Your task to perform on an android device: change alarm snooze length Image 0: 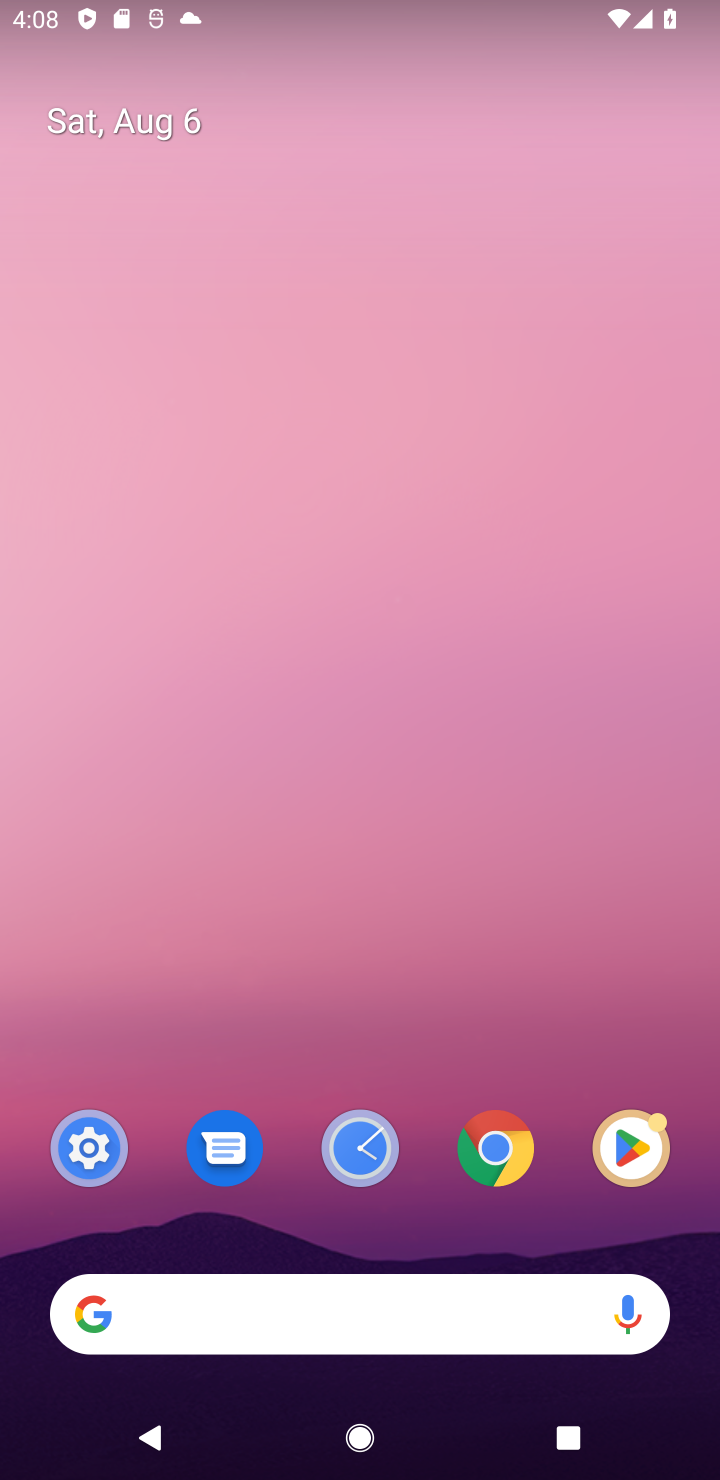
Step 0: drag from (393, 1148) to (318, 3)
Your task to perform on an android device: change alarm snooze length Image 1: 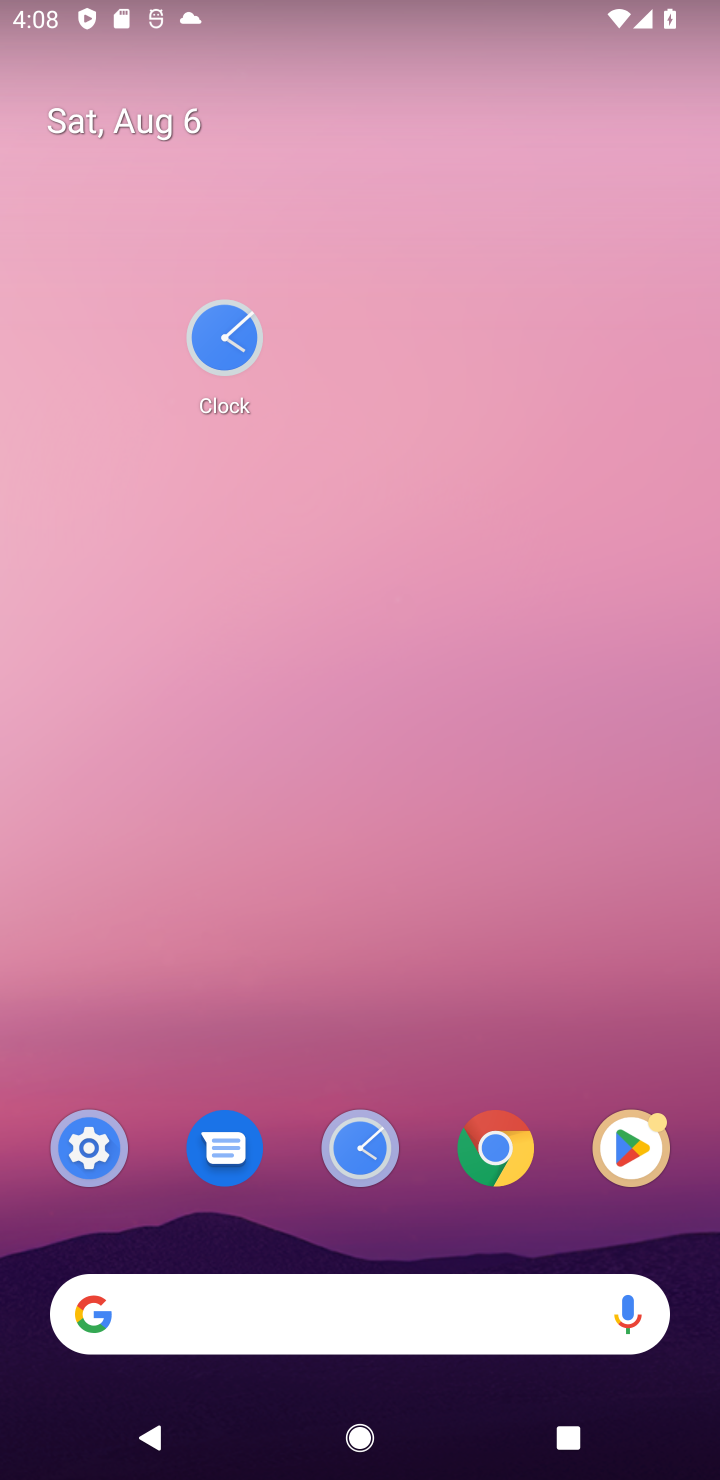
Step 1: click (349, 1148)
Your task to perform on an android device: change alarm snooze length Image 2: 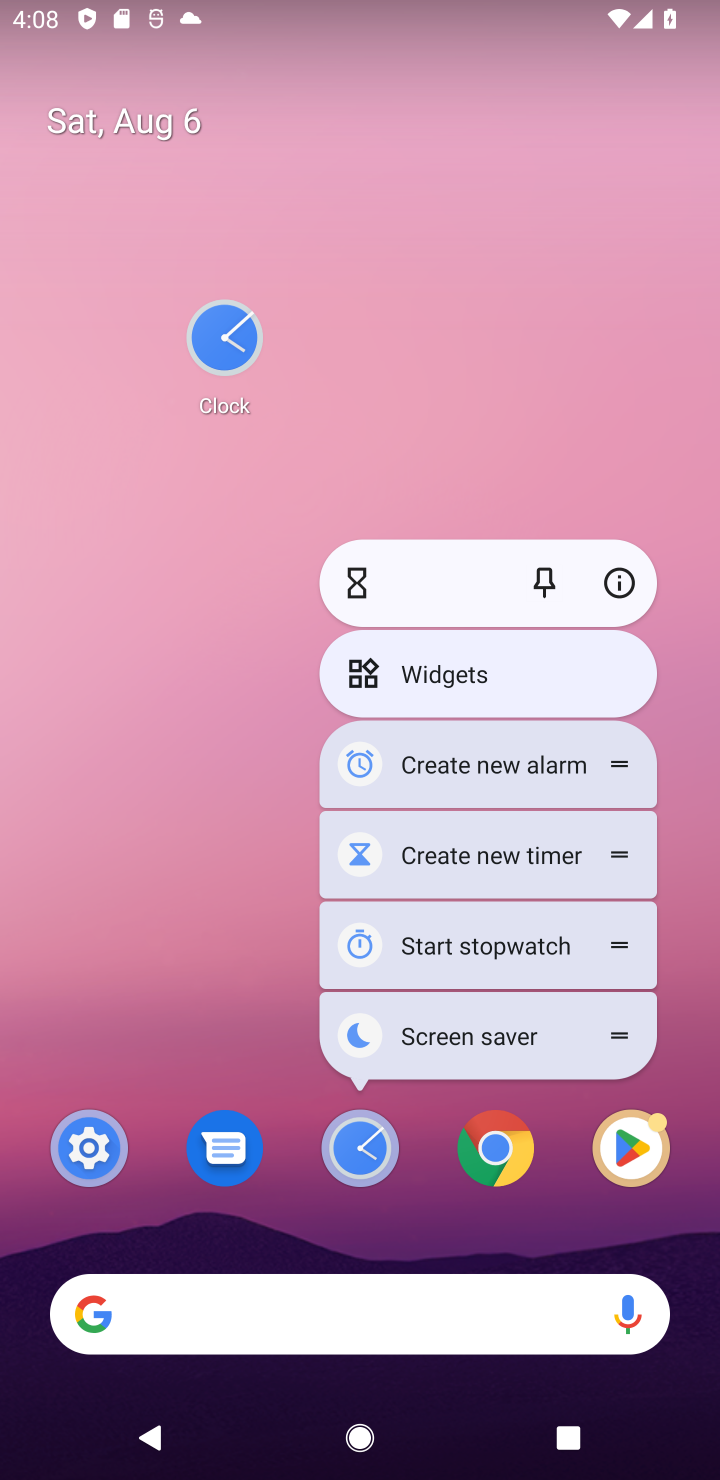
Step 2: click (621, 577)
Your task to perform on an android device: change alarm snooze length Image 3: 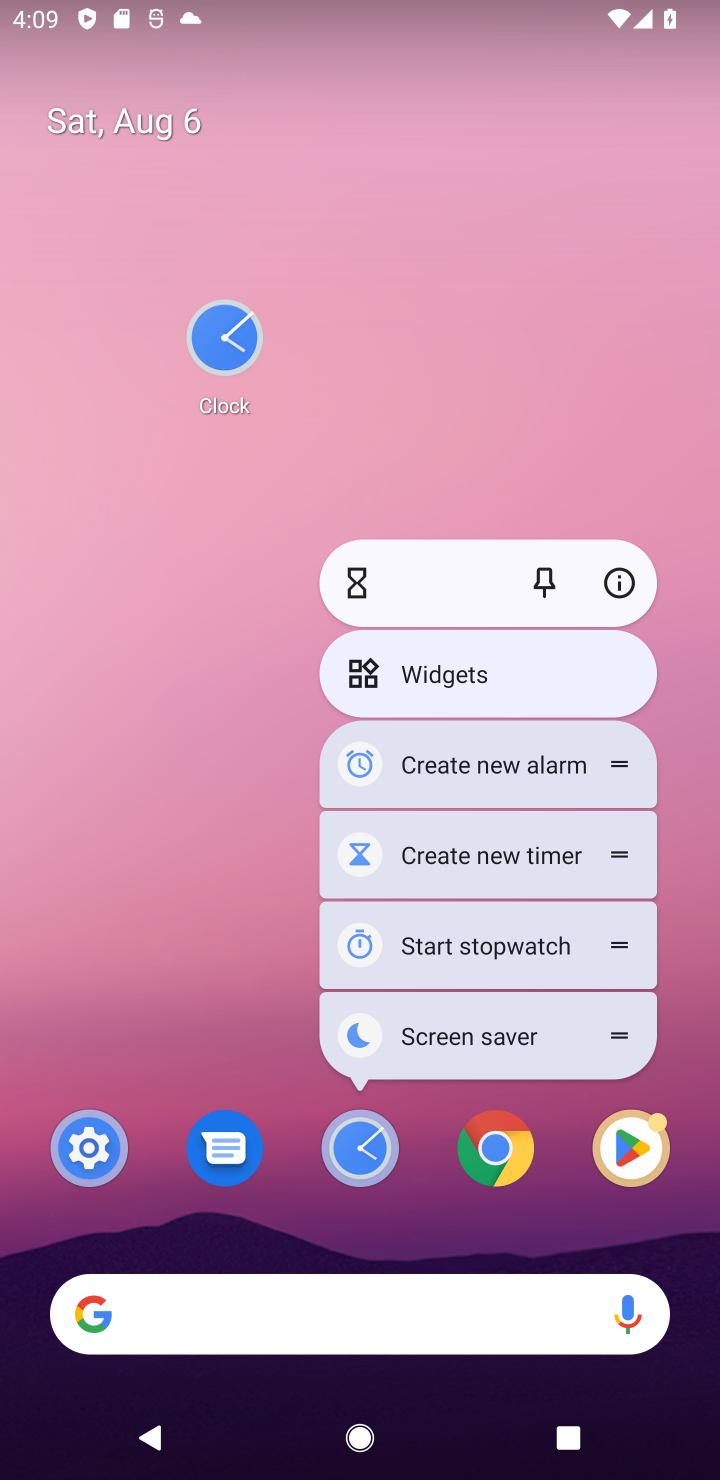
Step 3: click (605, 571)
Your task to perform on an android device: change alarm snooze length Image 4: 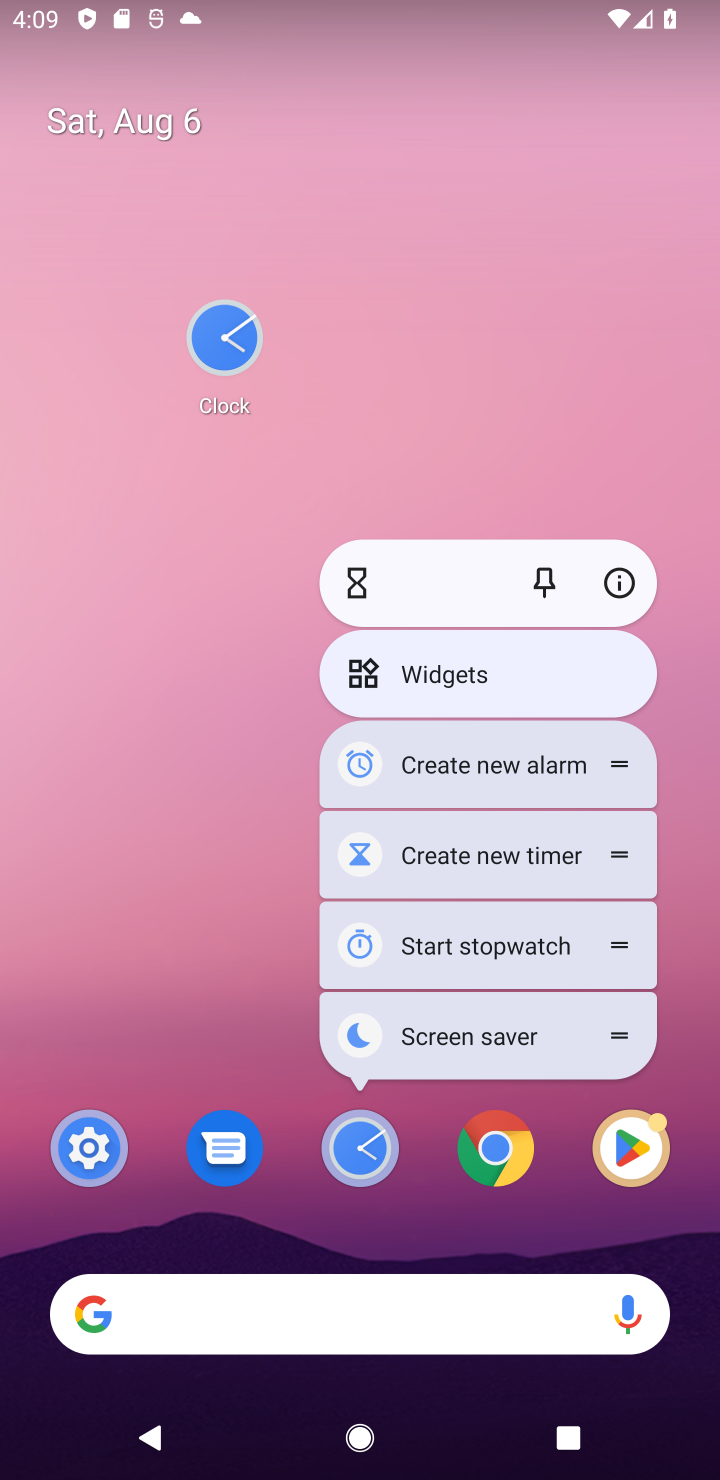
Step 4: click (614, 599)
Your task to perform on an android device: change alarm snooze length Image 5: 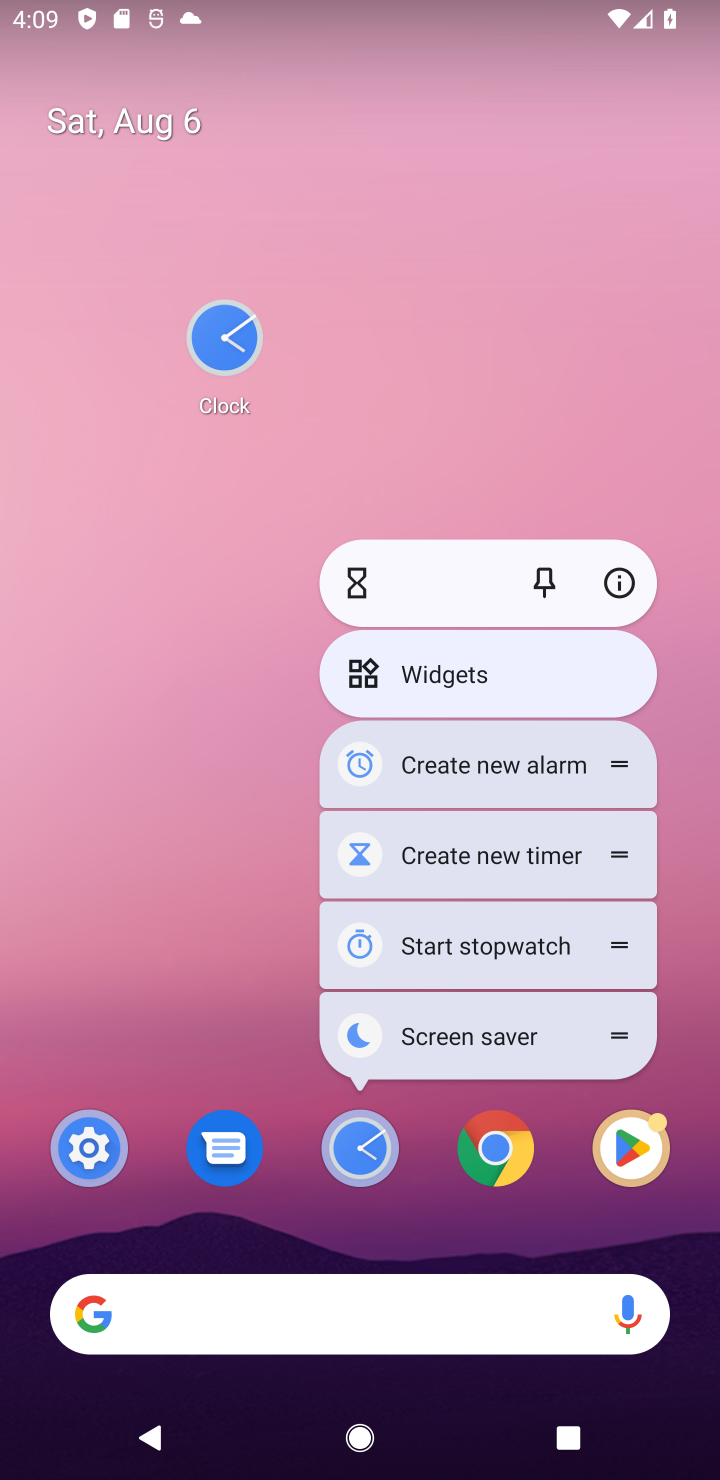
Step 5: click (616, 596)
Your task to perform on an android device: change alarm snooze length Image 6: 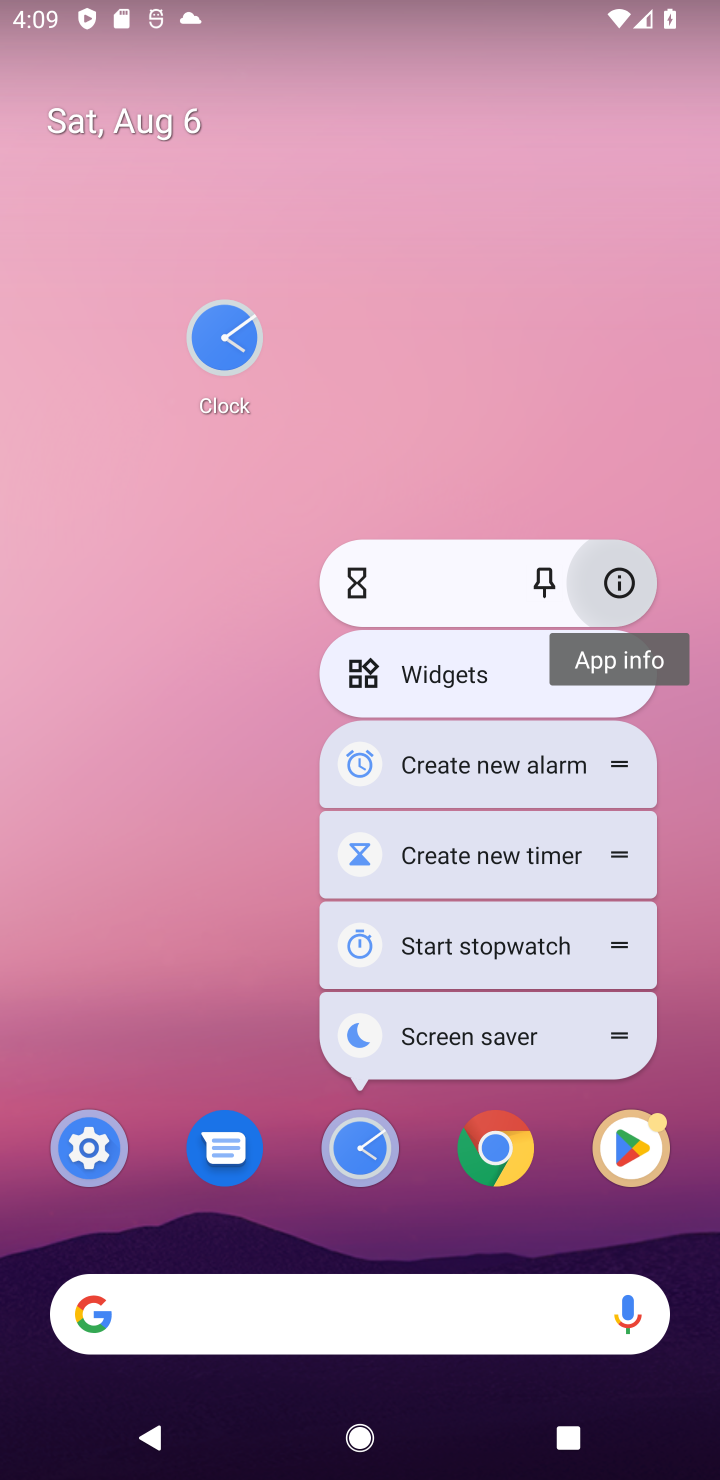
Step 6: click (616, 596)
Your task to perform on an android device: change alarm snooze length Image 7: 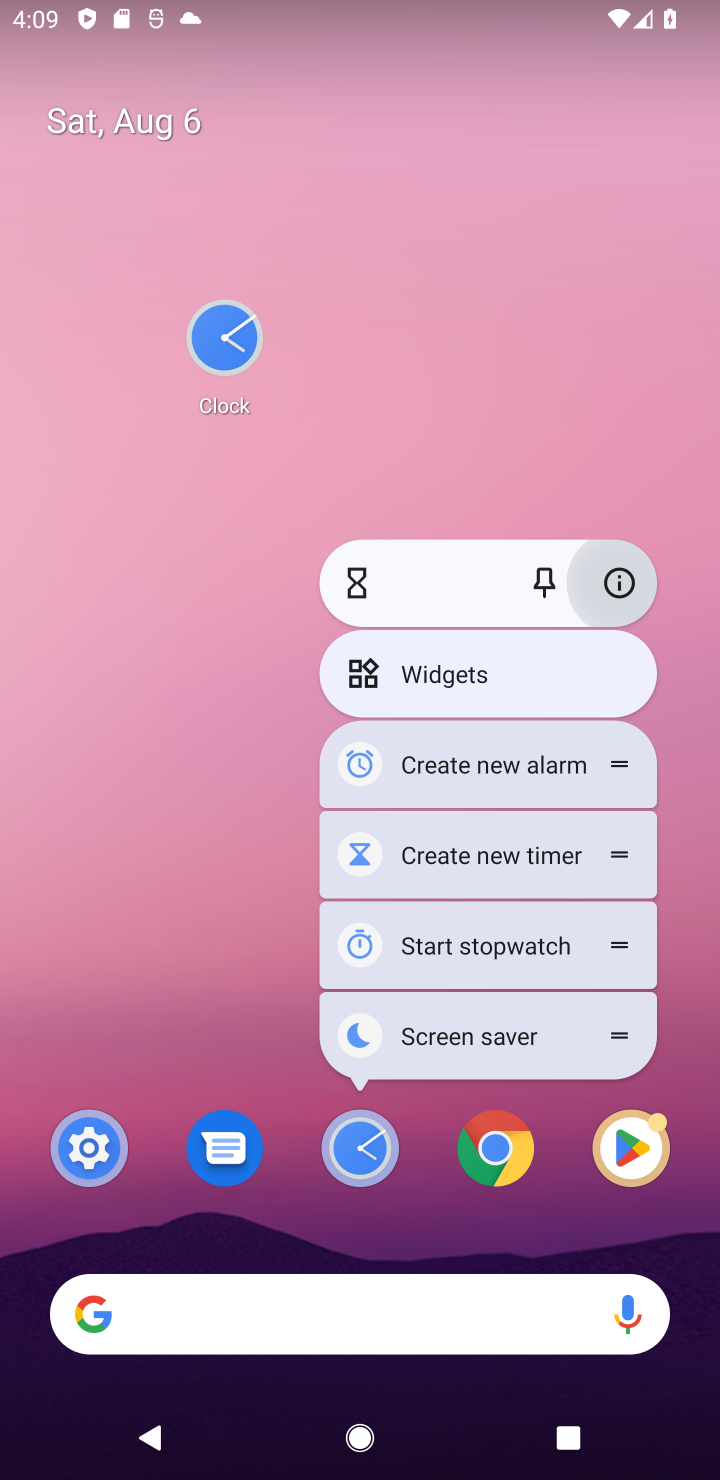
Step 7: click (616, 596)
Your task to perform on an android device: change alarm snooze length Image 8: 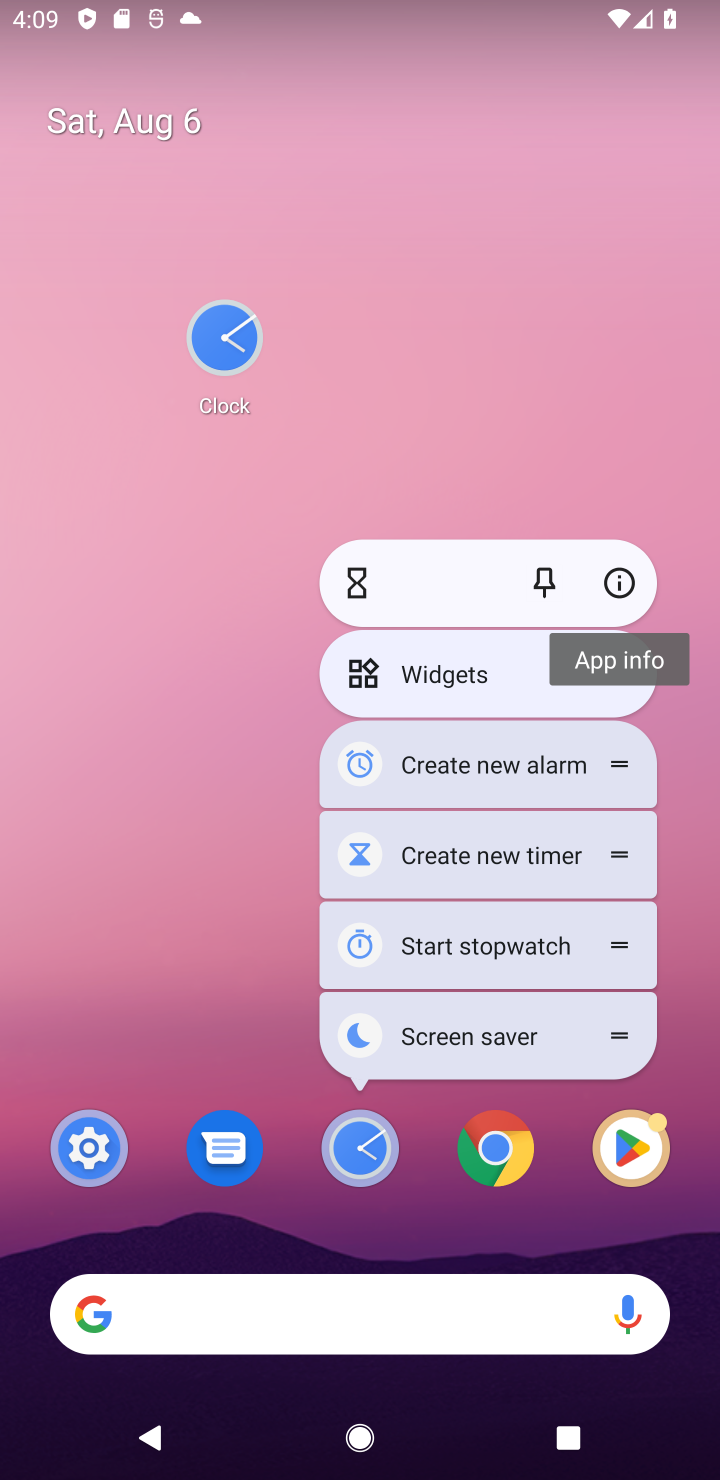
Step 8: click (616, 596)
Your task to perform on an android device: change alarm snooze length Image 9: 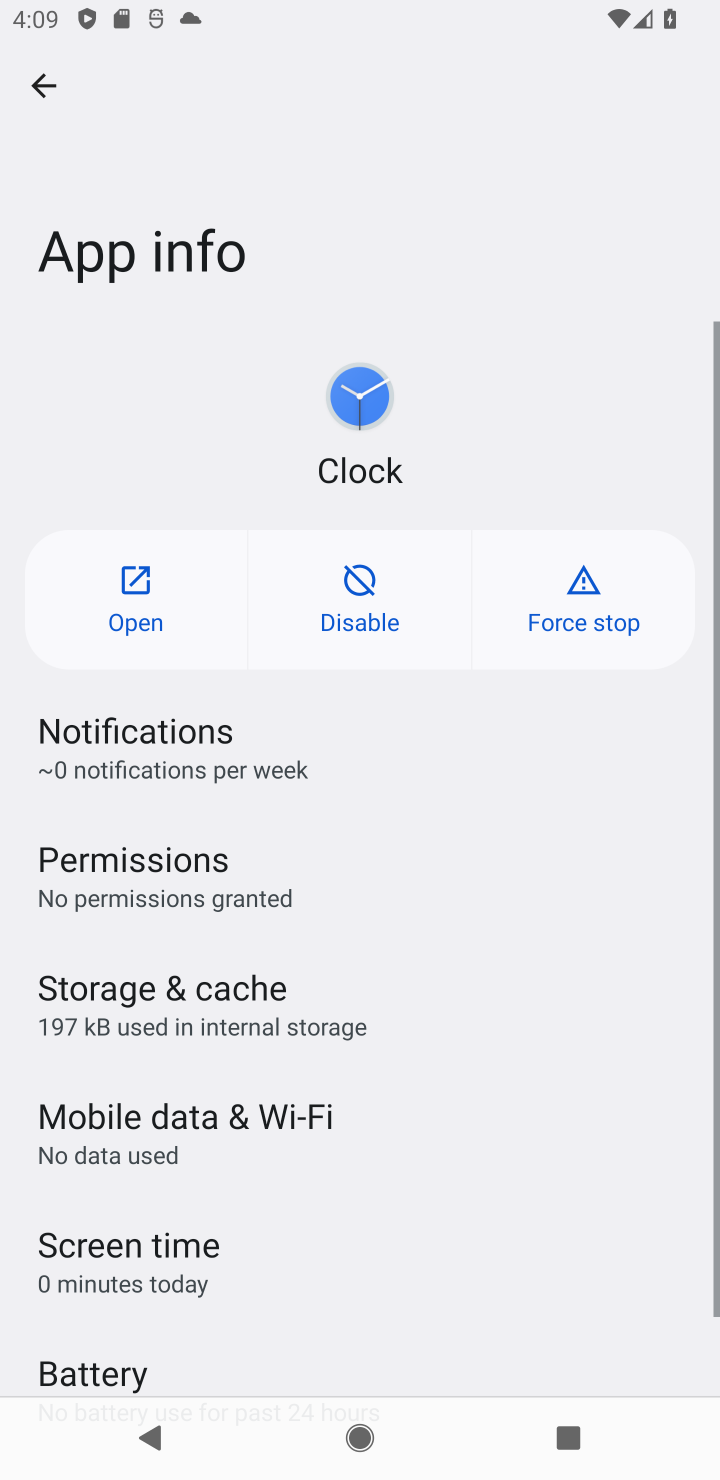
Step 9: click (139, 587)
Your task to perform on an android device: change alarm snooze length Image 10: 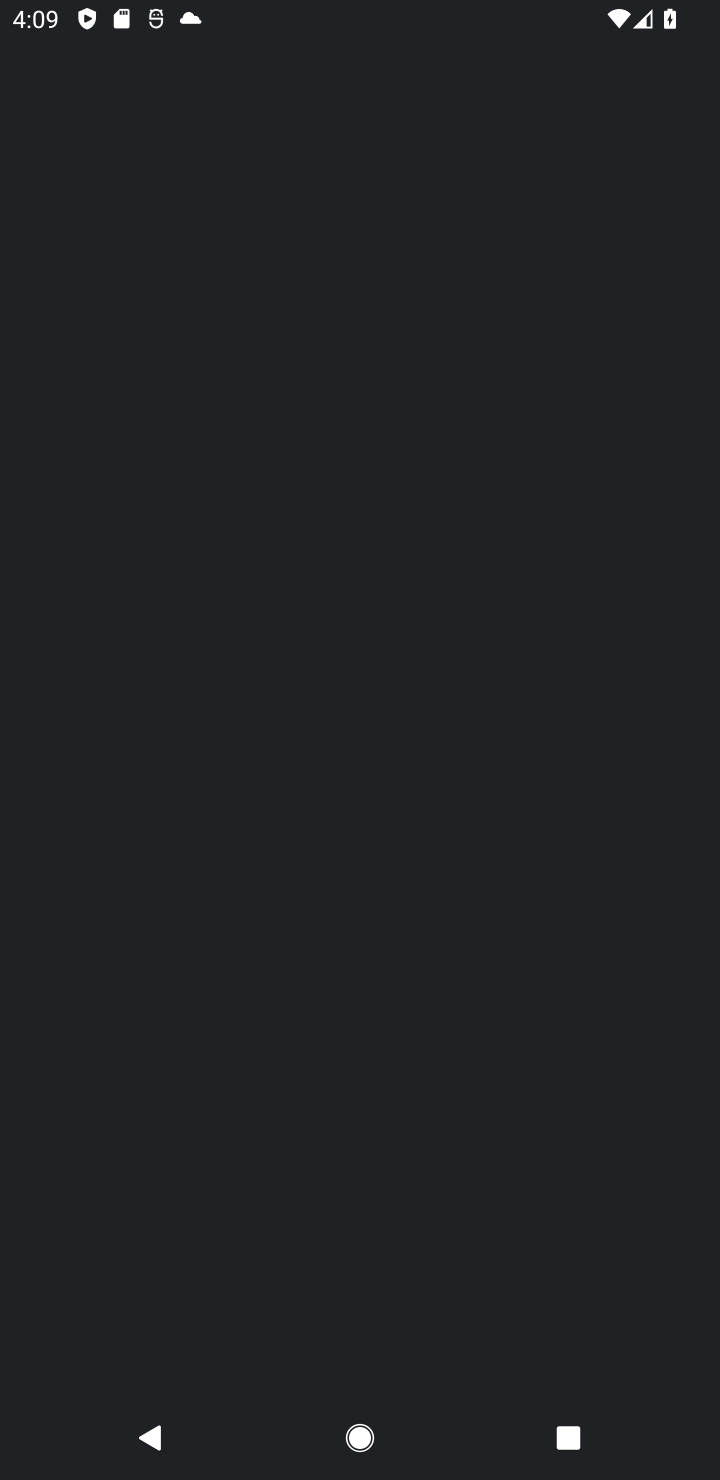
Step 10: drag from (386, 1235) to (434, 600)
Your task to perform on an android device: change alarm snooze length Image 11: 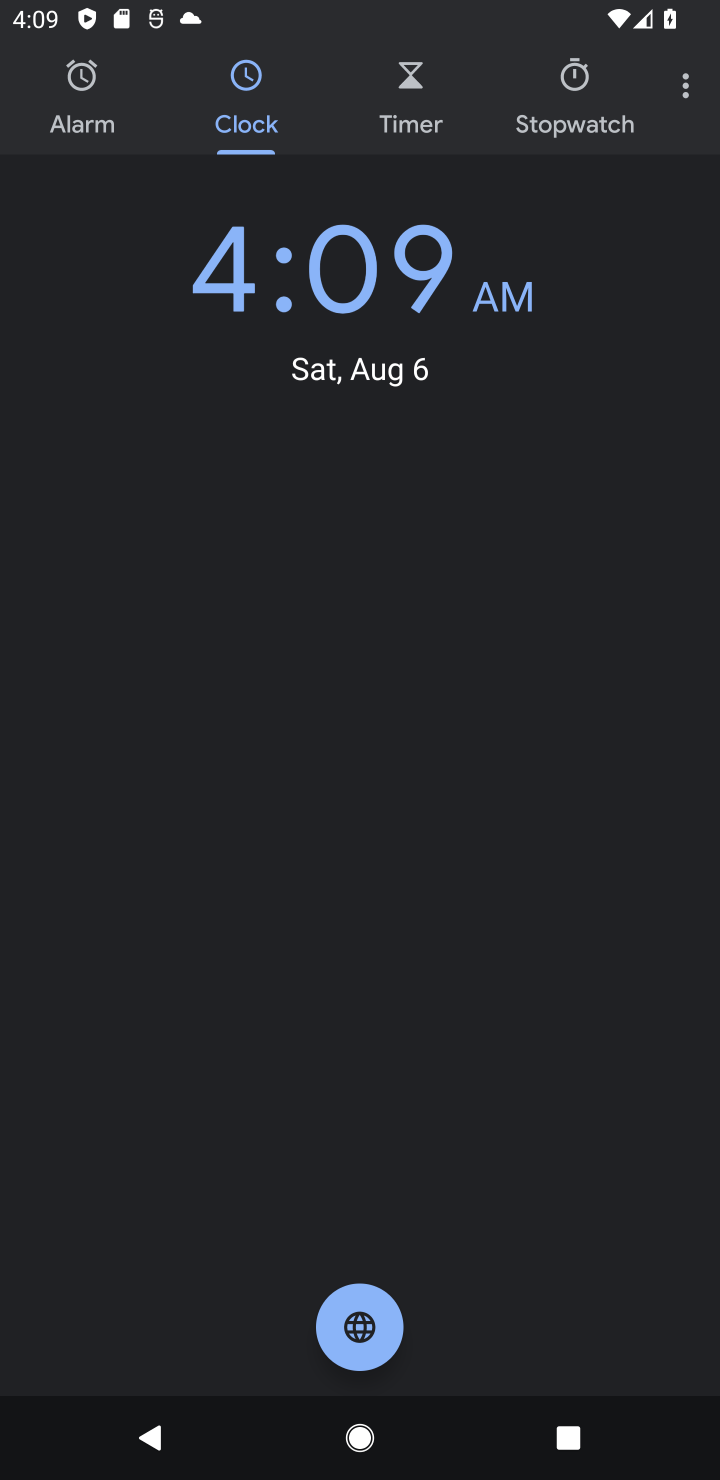
Step 11: drag from (685, 84) to (514, 173)
Your task to perform on an android device: change alarm snooze length Image 12: 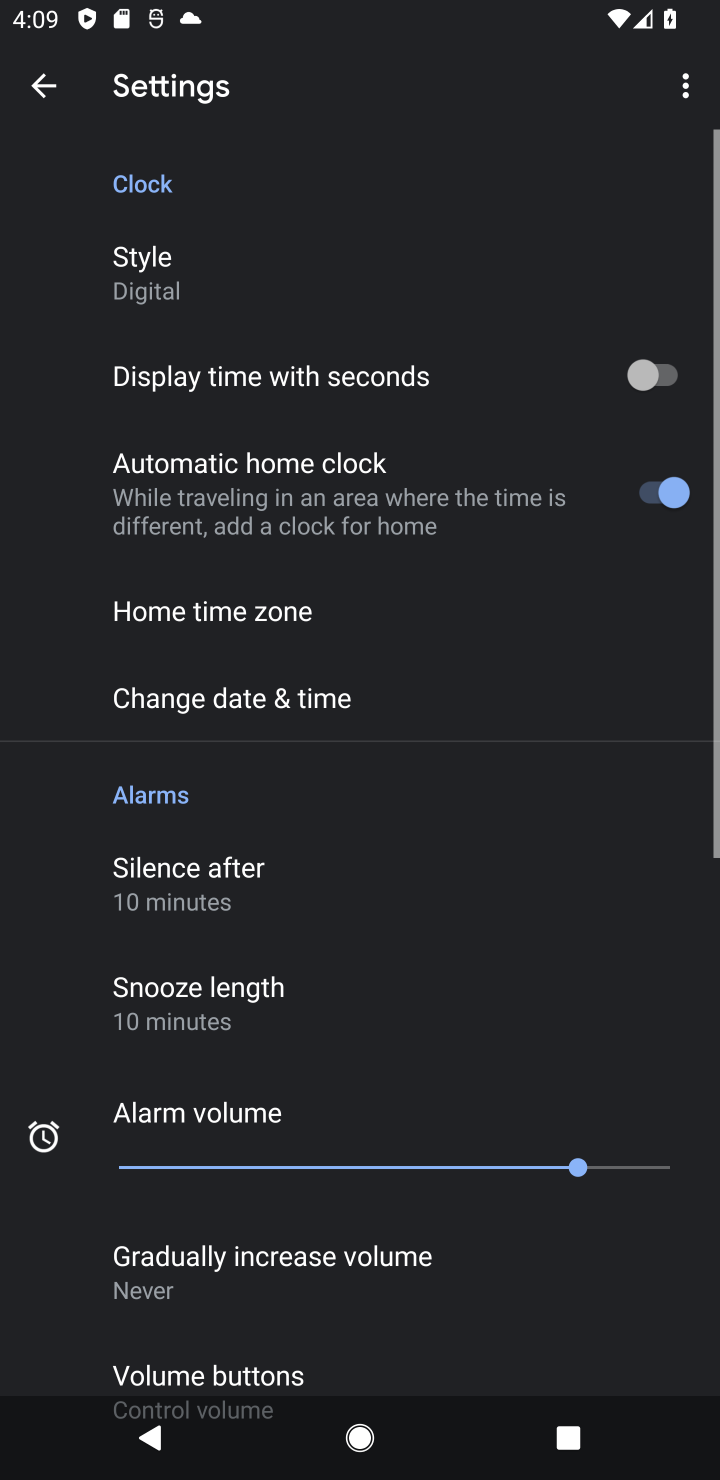
Step 12: drag from (251, 812) to (403, 323)
Your task to perform on an android device: change alarm snooze length Image 13: 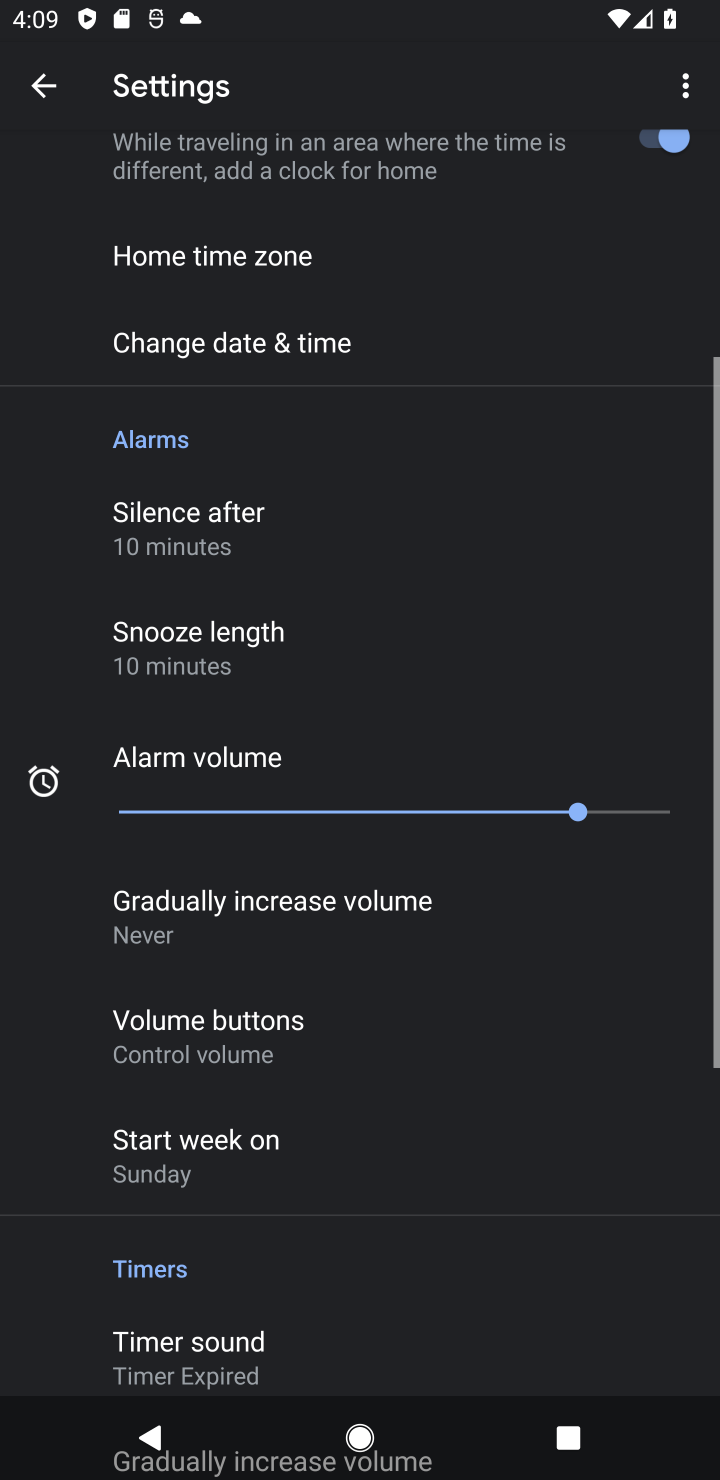
Step 13: drag from (408, 270) to (715, 1462)
Your task to perform on an android device: change alarm snooze length Image 14: 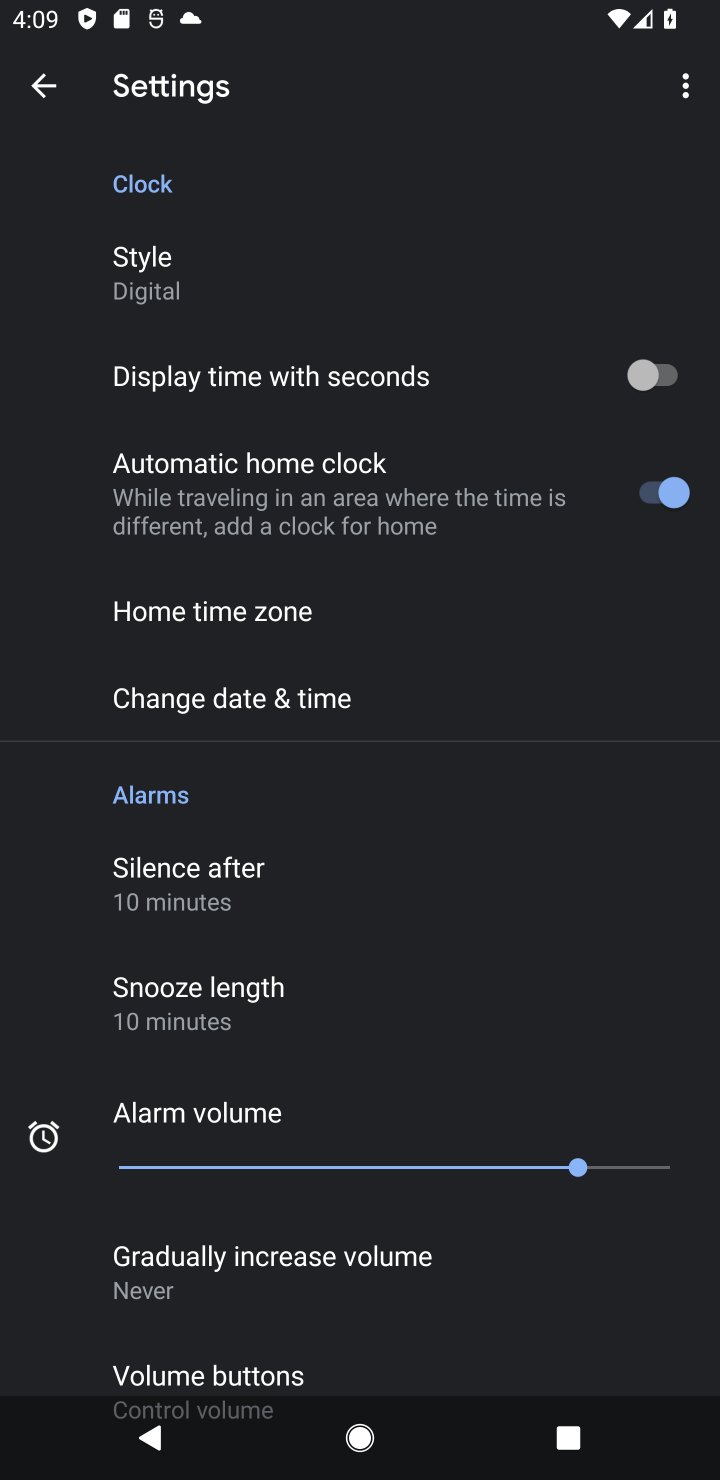
Step 14: click (266, 987)
Your task to perform on an android device: change alarm snooze length Image 15: 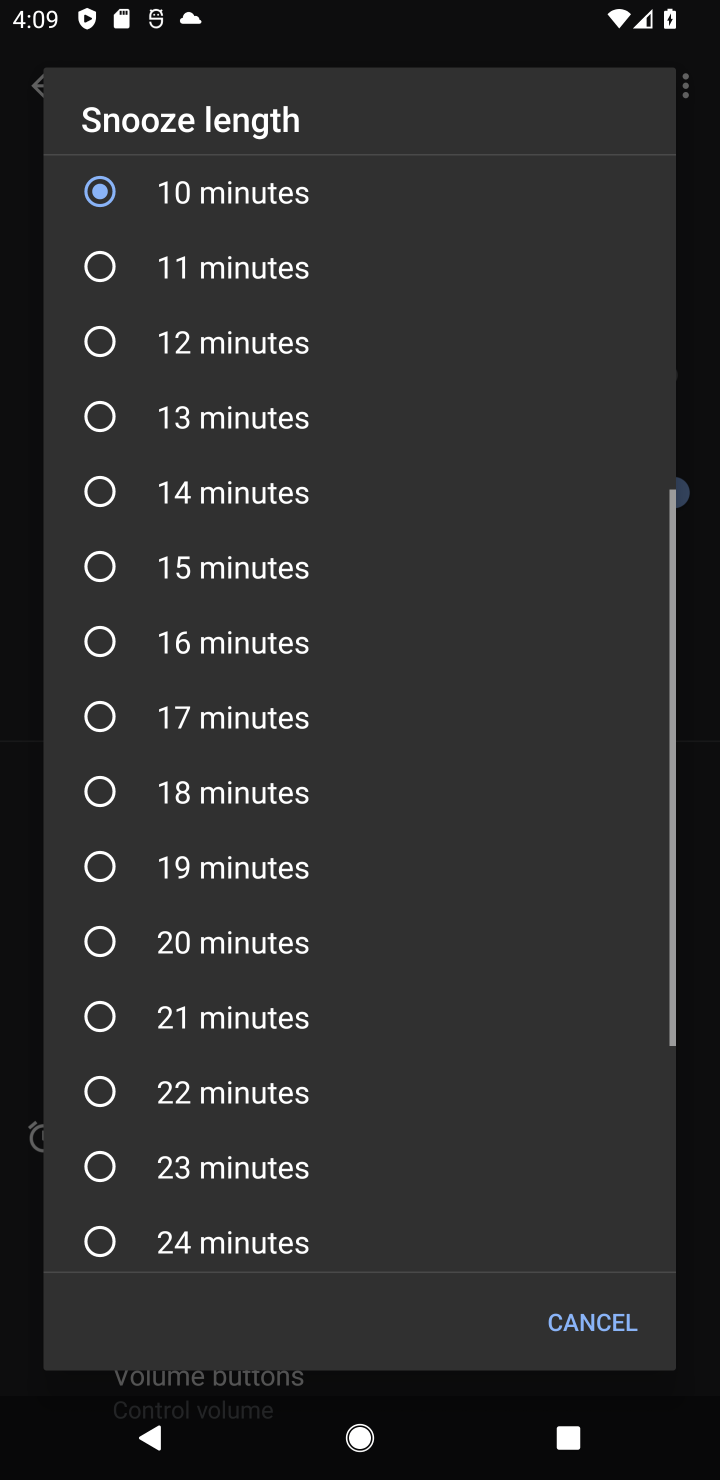
Step 15: drag from (357, 804) to (312, 1422)
Your task to perform on an android device: change alarm snooze length Image 16: 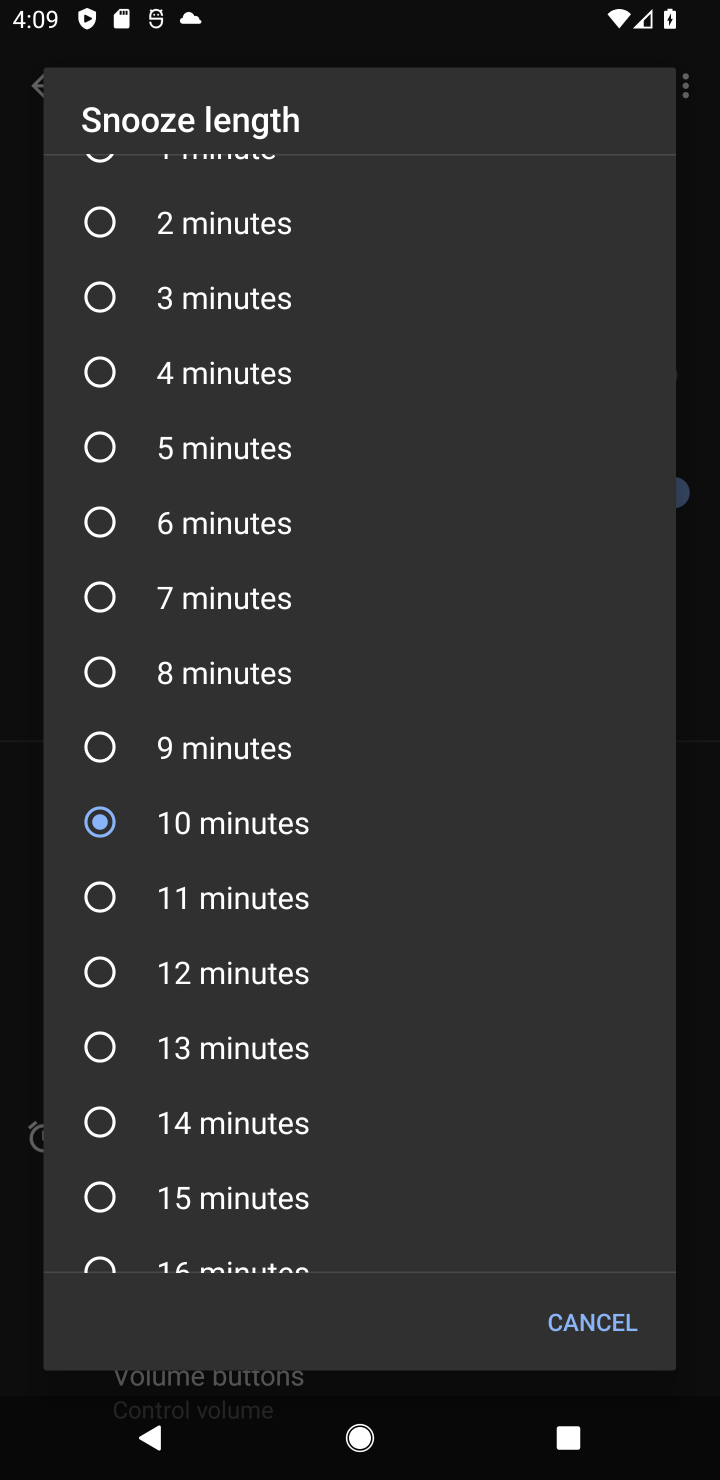
Step 16: drag from (230, 541) to (258, 1274)
Your task to perform on an android device: change alarm snooze length Image 17: 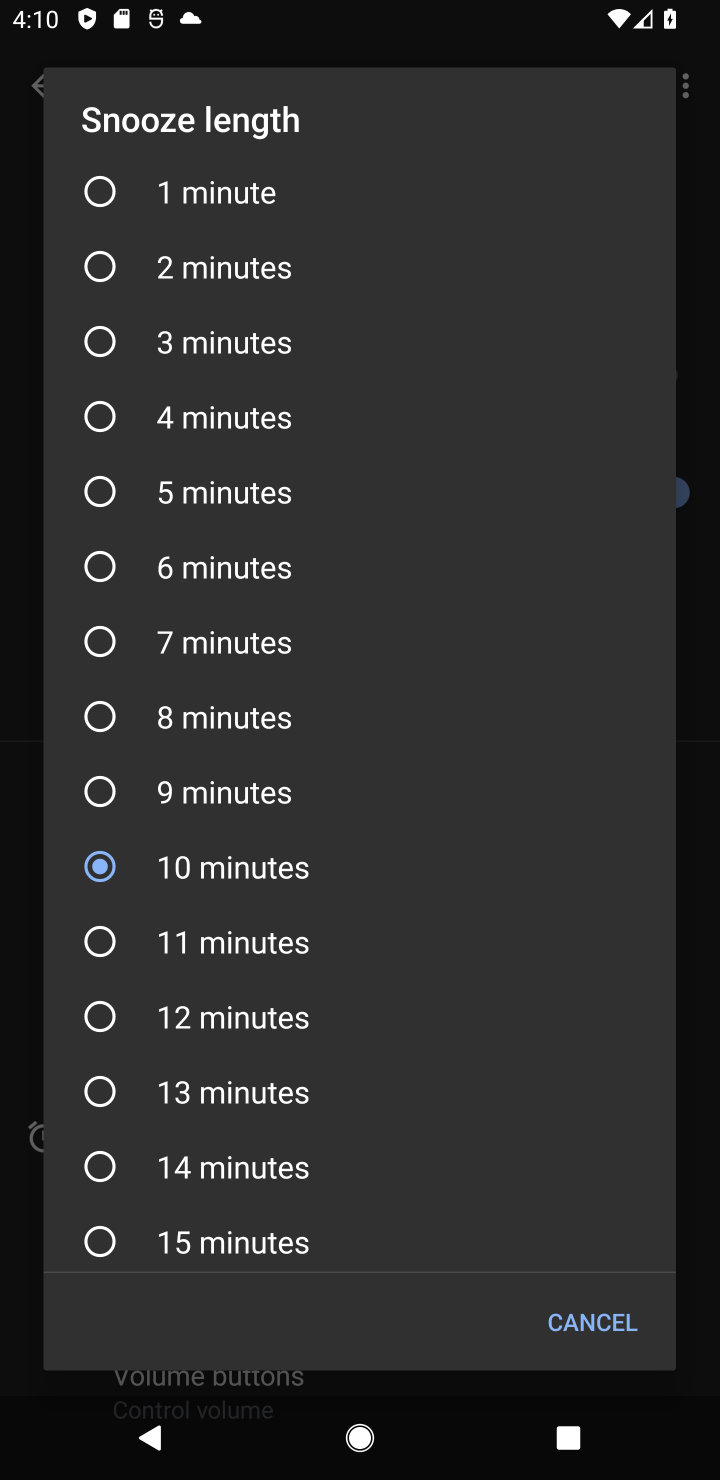
Step 17: click (167, 193)
Your task to perform on an android device: change alarm snooze length Image 18: 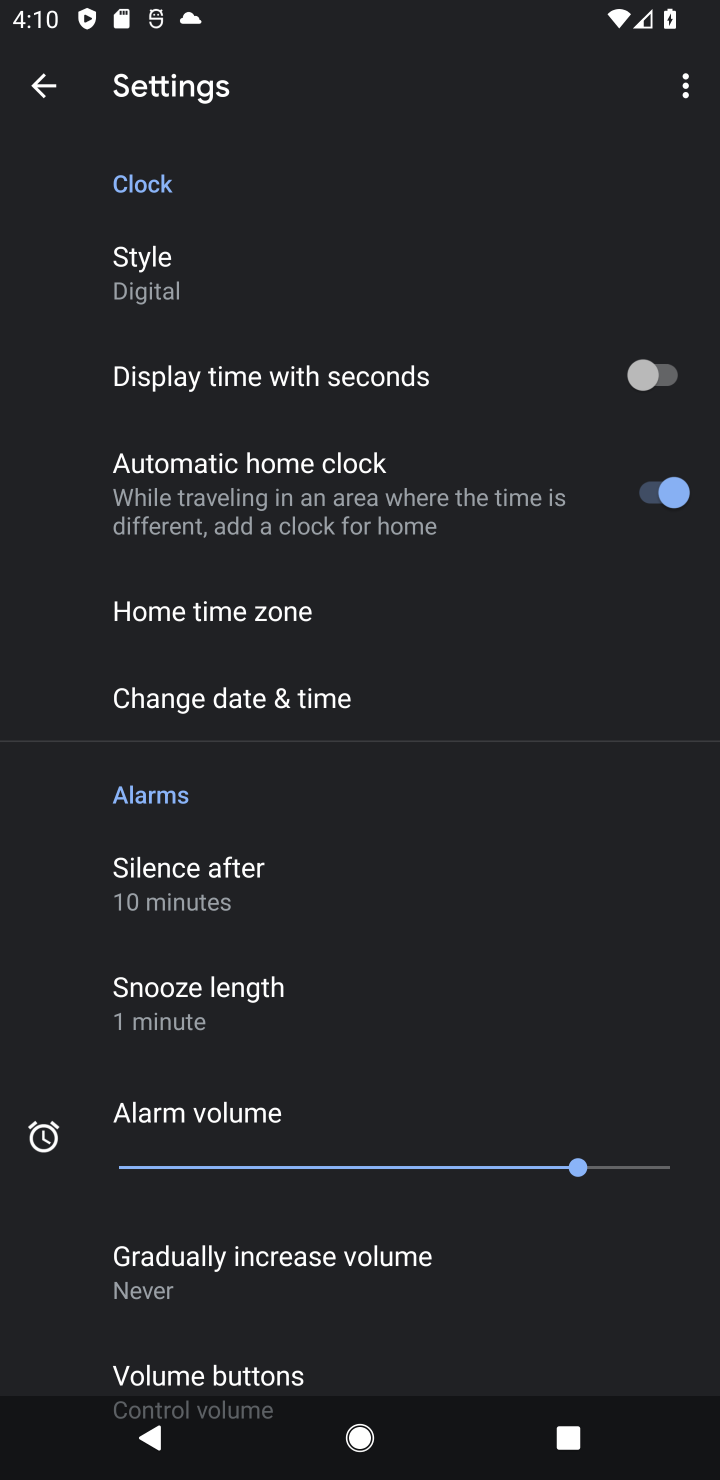
Step 18: task complete